Your task to perform on an android device: What is the recent news? Image 0: 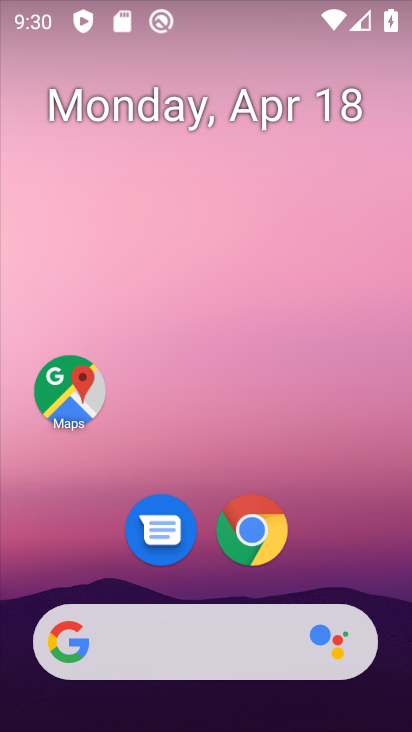
Step 0: drag from (243, 289) to (396, 304)
Your task to perform on an android device: What is the recent news? Image 1: 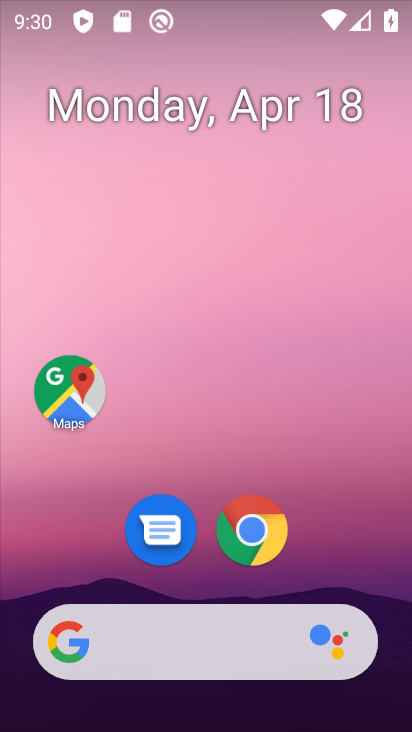
Step 1: task complete